Your task to perform on an android device: See recent photos Image 0: 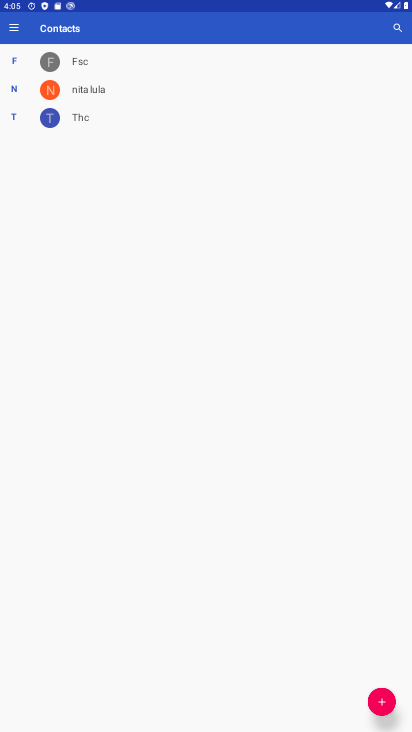
Step 0: press home button
Your task to perform on an android device: See recent photos Image 1: 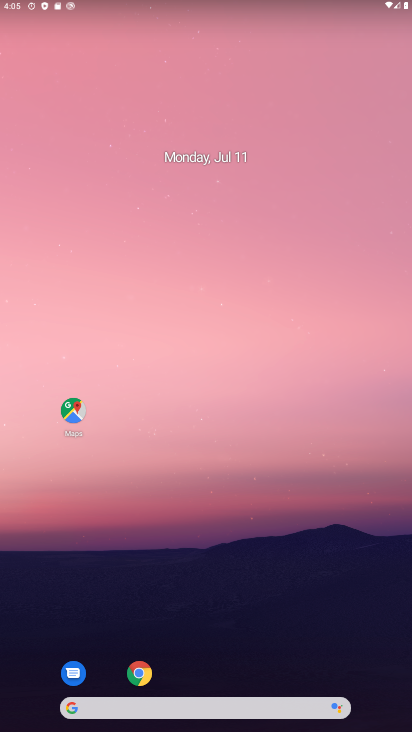
Step 1: drag from (252, 646) to (186, 1)
Your task to perform on an android device: See recent photos Image 2: 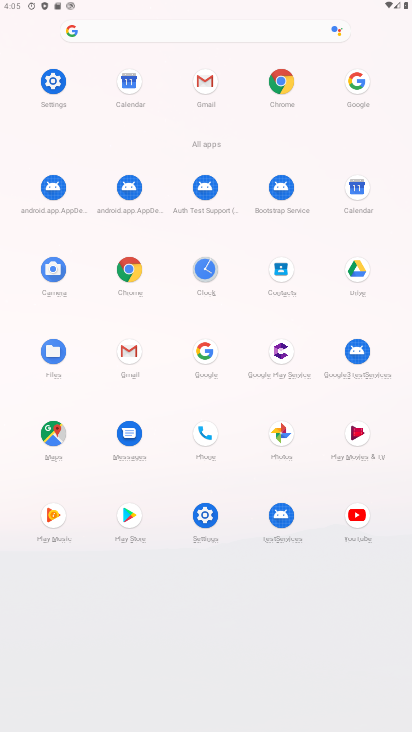
Step 2: click (277, 431)
Your task to perform on an android device: See recent photos Image 3: 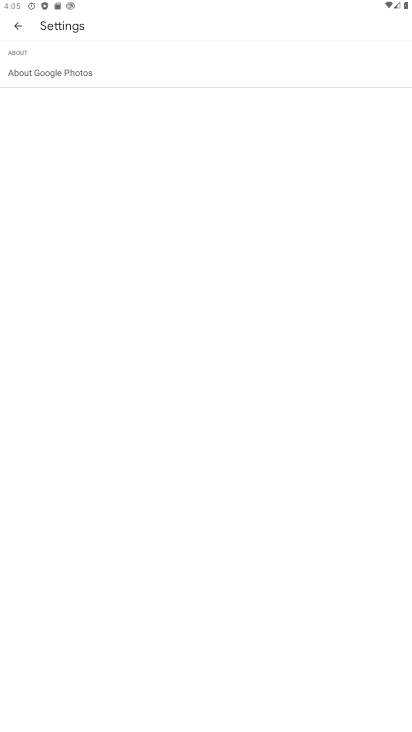
Step 3: click (59, 71)
Your task to perform on an android device: See recent photos Image 4: 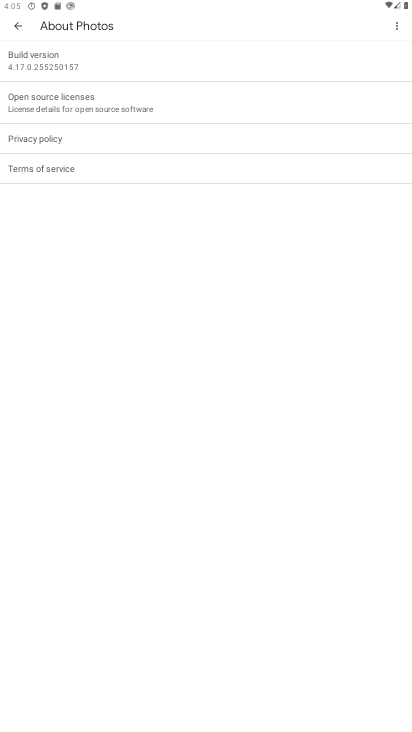
Step 4: click (6, 25)
Your task to perform on an android device: See recent photos Image 5: 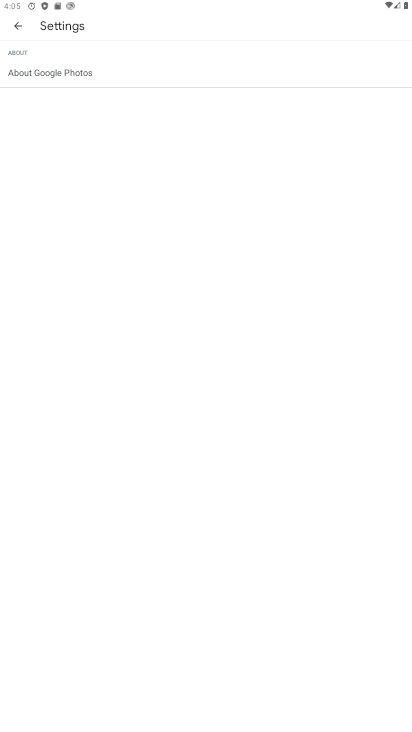
Step 5: click (16, 28)
Your task to perform on an android device: See recent photos Image 6: 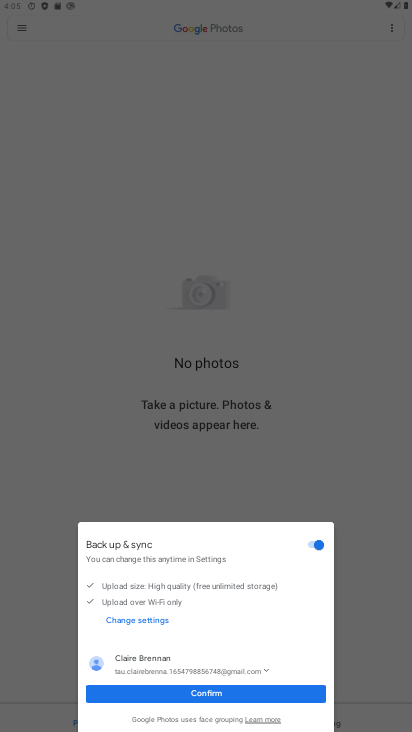
Step 6: click (250, 697)
Your task to perform on an android device: See recent photos Image 7: 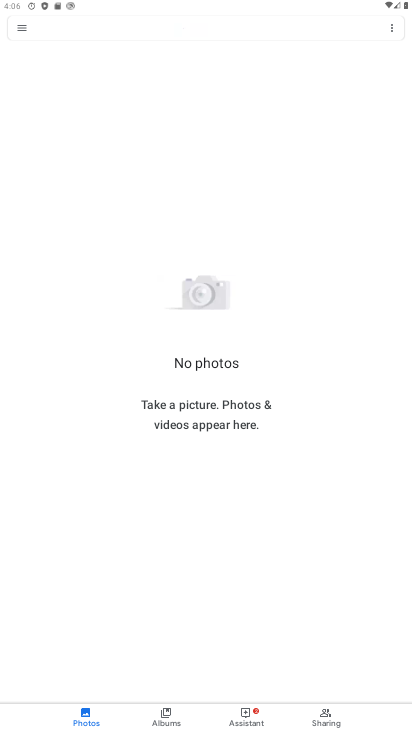
Step 7: click (89, 715)
Your task to perform on an android device: See recent photos Image 8: 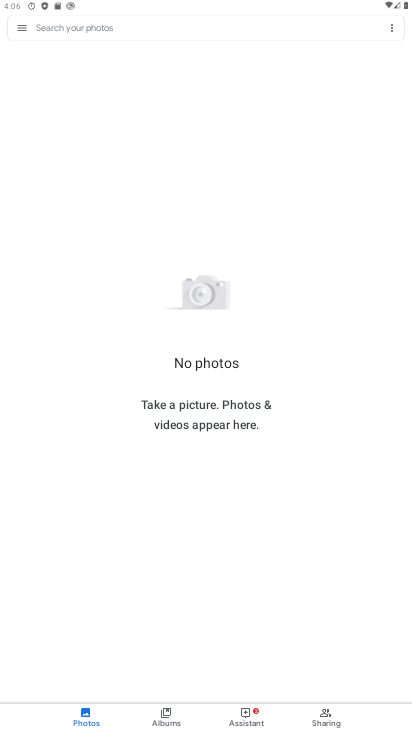
Step 8: task complete